Your task to perform on an android device: open app "Microsoft Authenticator" (install if not already installed), go to login, and select forgot password Image 0: 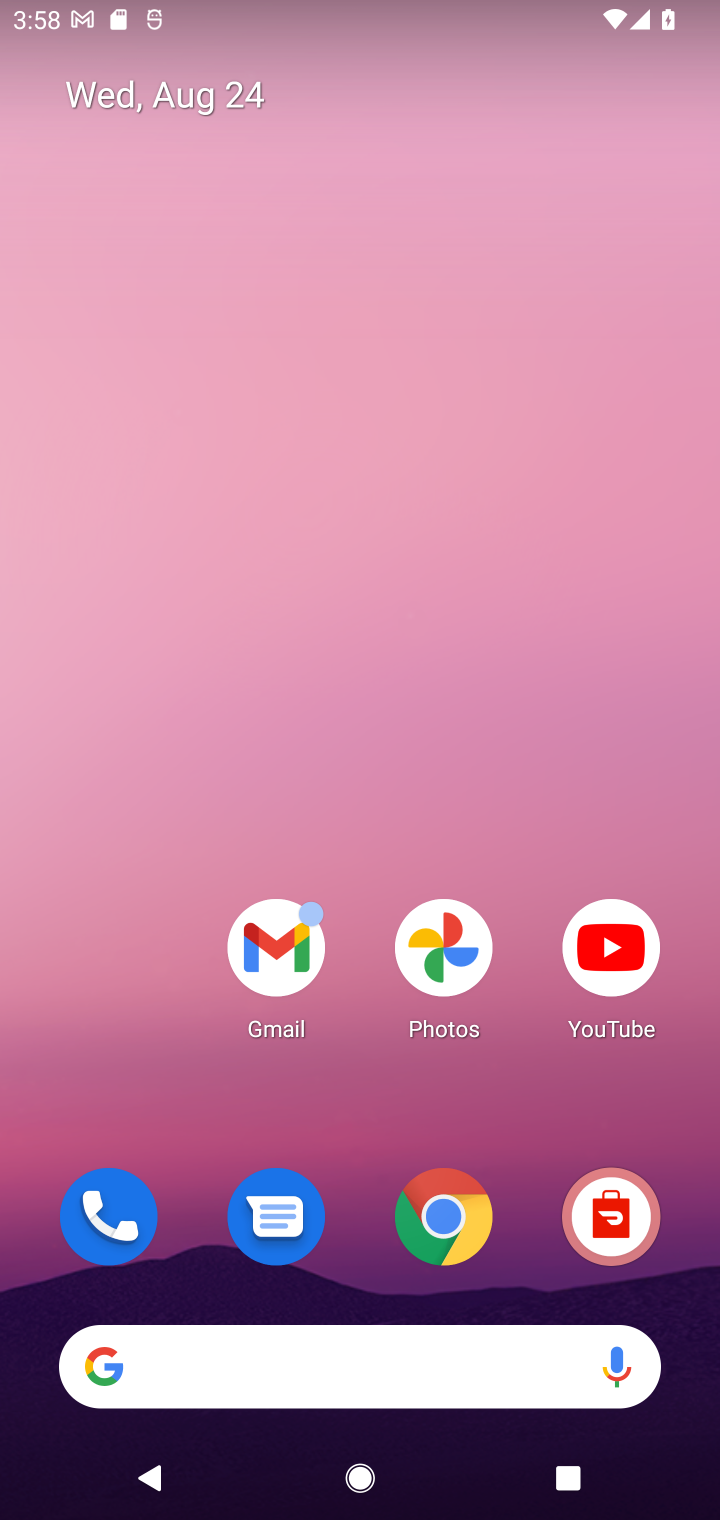
Step 0: drag from (340, 1005) to (408, 270)
Your task to perform on an android device: open app "Microsoft Authenticator" (install if not already installed), go to login, and select forgot password Image 1: 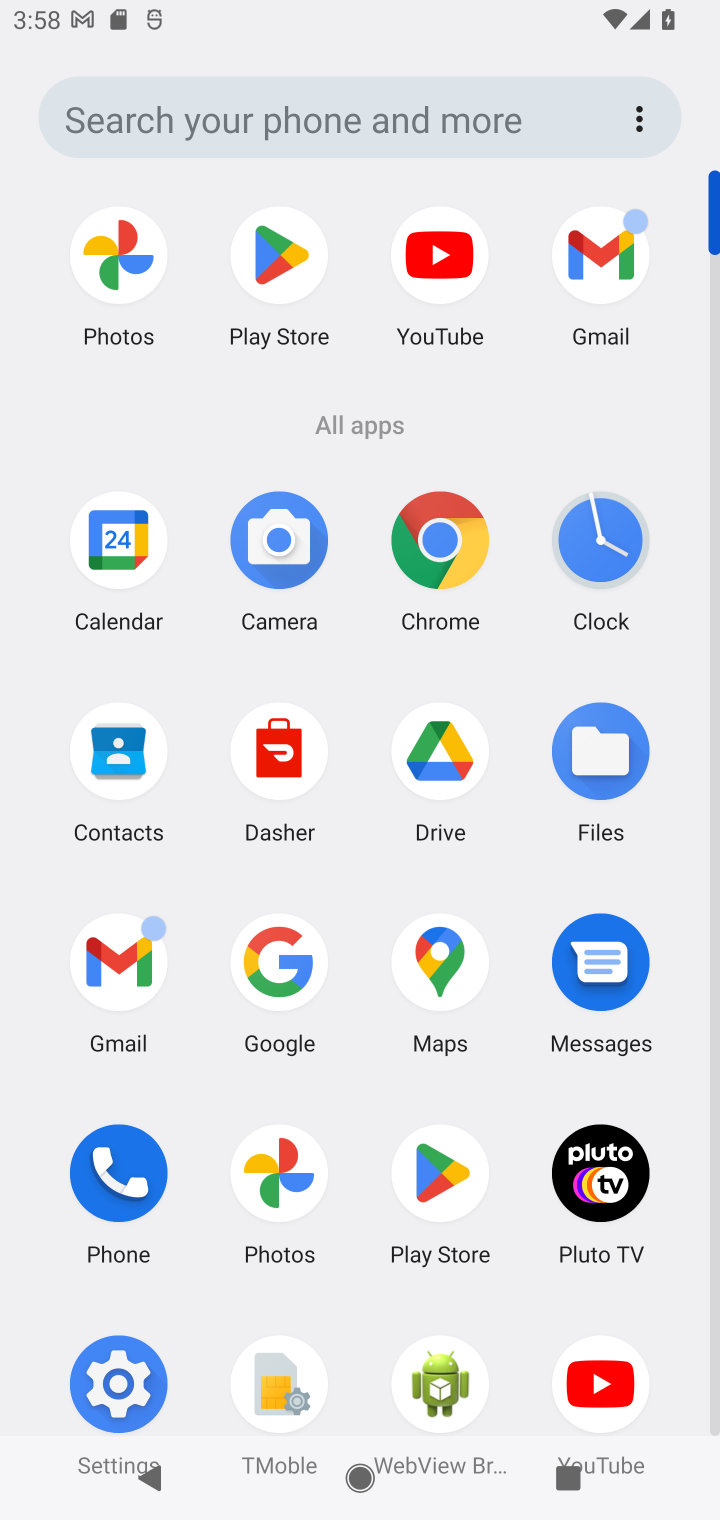
Step 1: click (309, 237)
Your task to perform on an android device: open app "Microsoft Authenticator" (install if not already installed), go to login, and select forgot password Image 2: 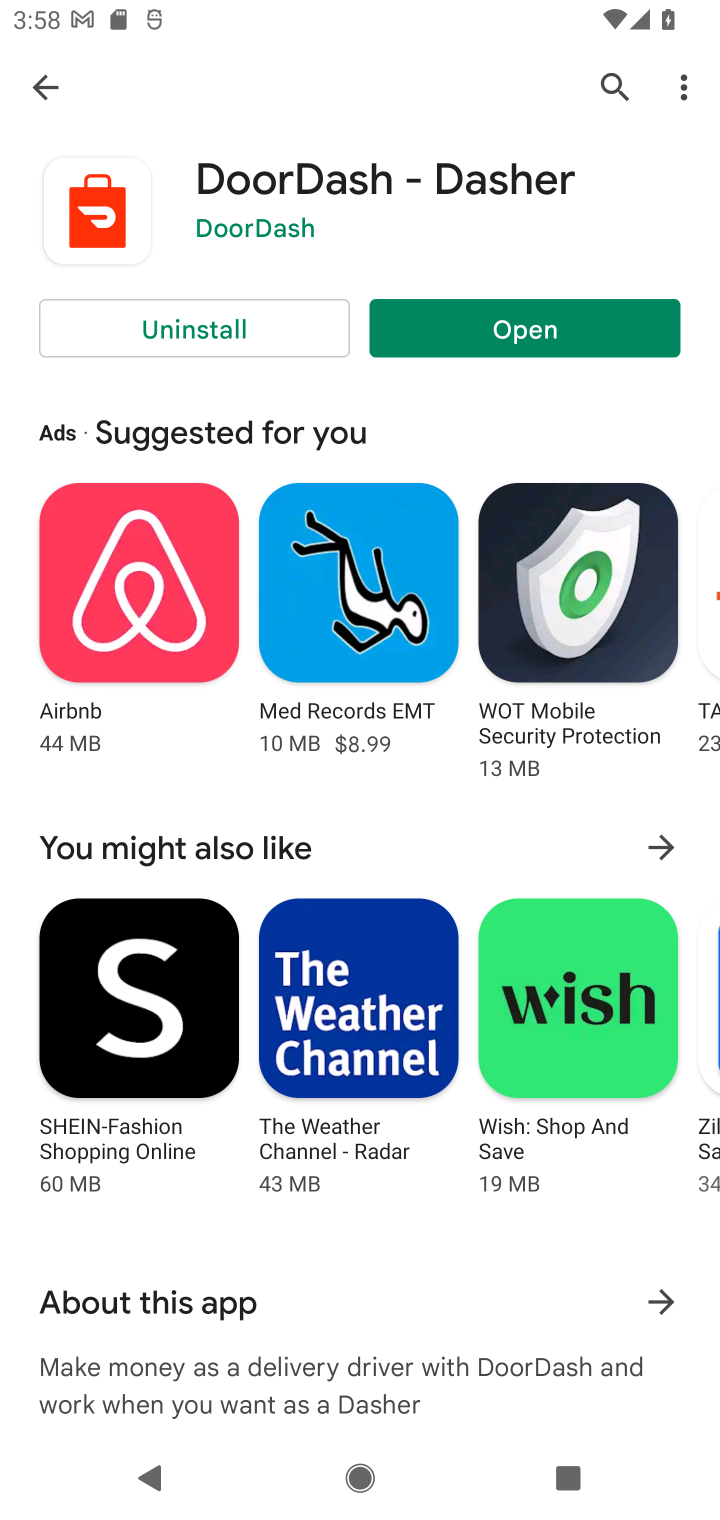
Step 2: click (615, 84)
Your task to perform on an android device: open app "Microsoft Authenticator" (install if not already installed), go to login, and select forgot password Image 3: 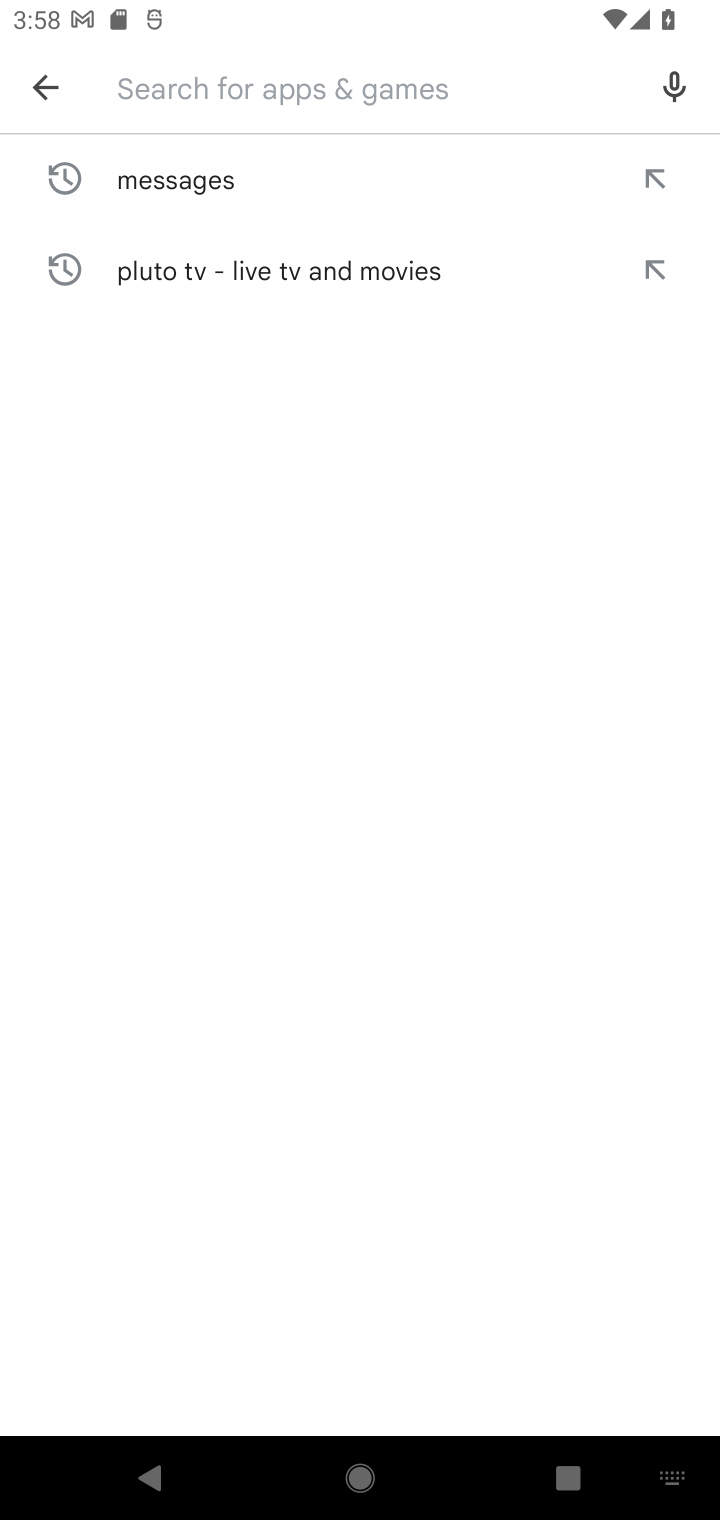
Step 3: type "Microsoft Authenticator"
Your task to perform on an android device: open app "Microsoft Authenticator" (install if not already installed), go to login, and select forgot password Image 4: 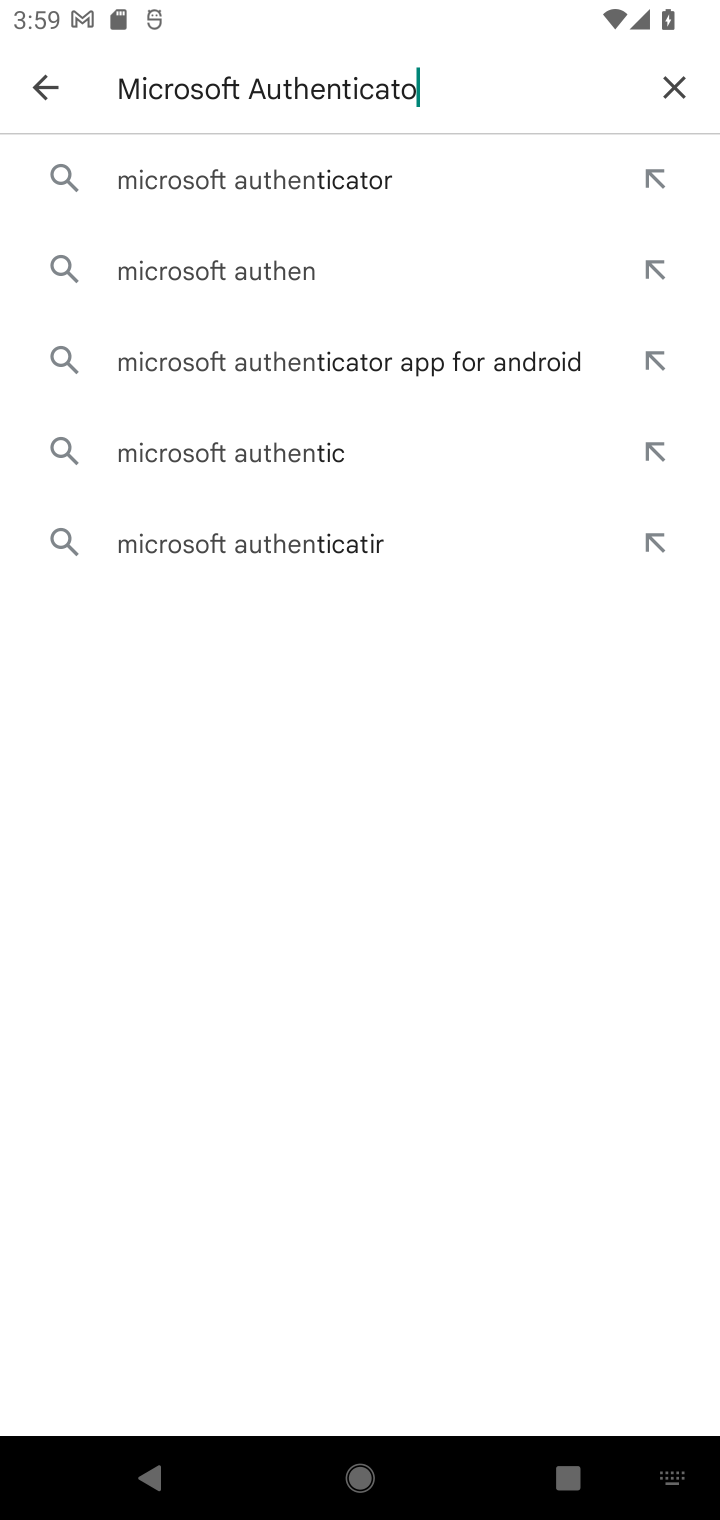
Step 4: type ""
Your task to perform on an android device: open app "Microsoft Authenticator" (install if not already installed), go to login, and select forgot password Image 5: 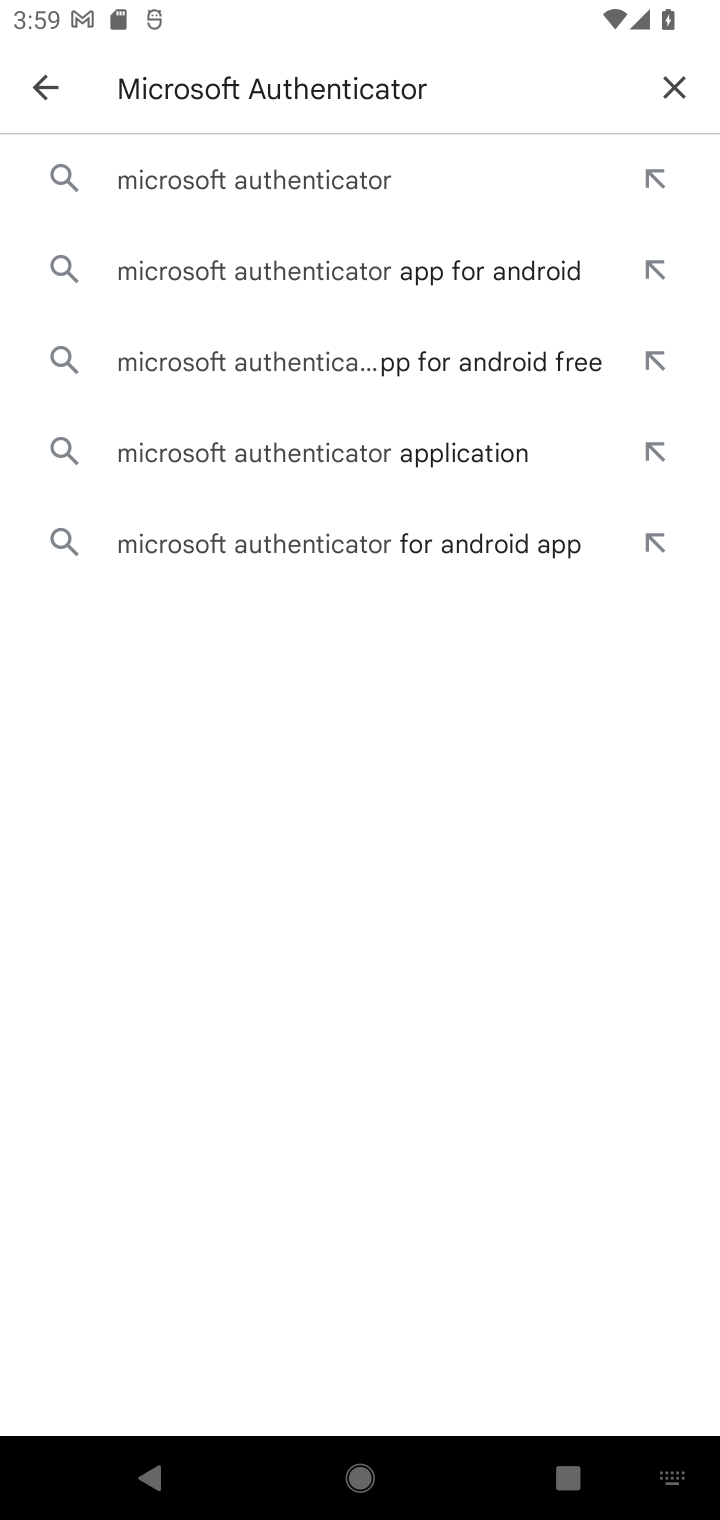
Step 5: click (224, 159)
Your task to perform on an android device: open app "Microsoft Authenticator" (install if not already installed), go to login, and select forgot password Image 6: 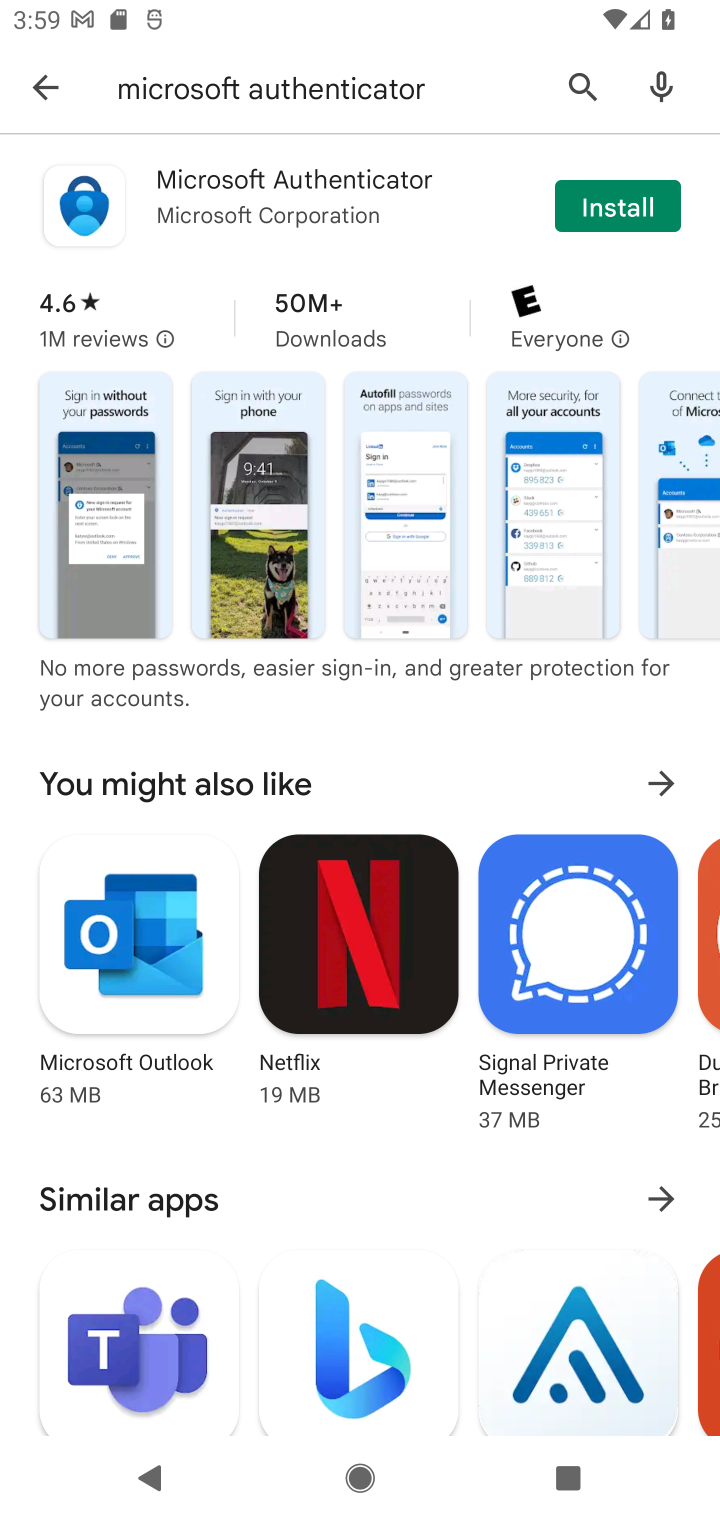
Step 6: click (648, 213)
Your task to perform on an android device: open app "Microsoft Authenticator" (install if not already installed), go to login, and select forgot password Image 7: 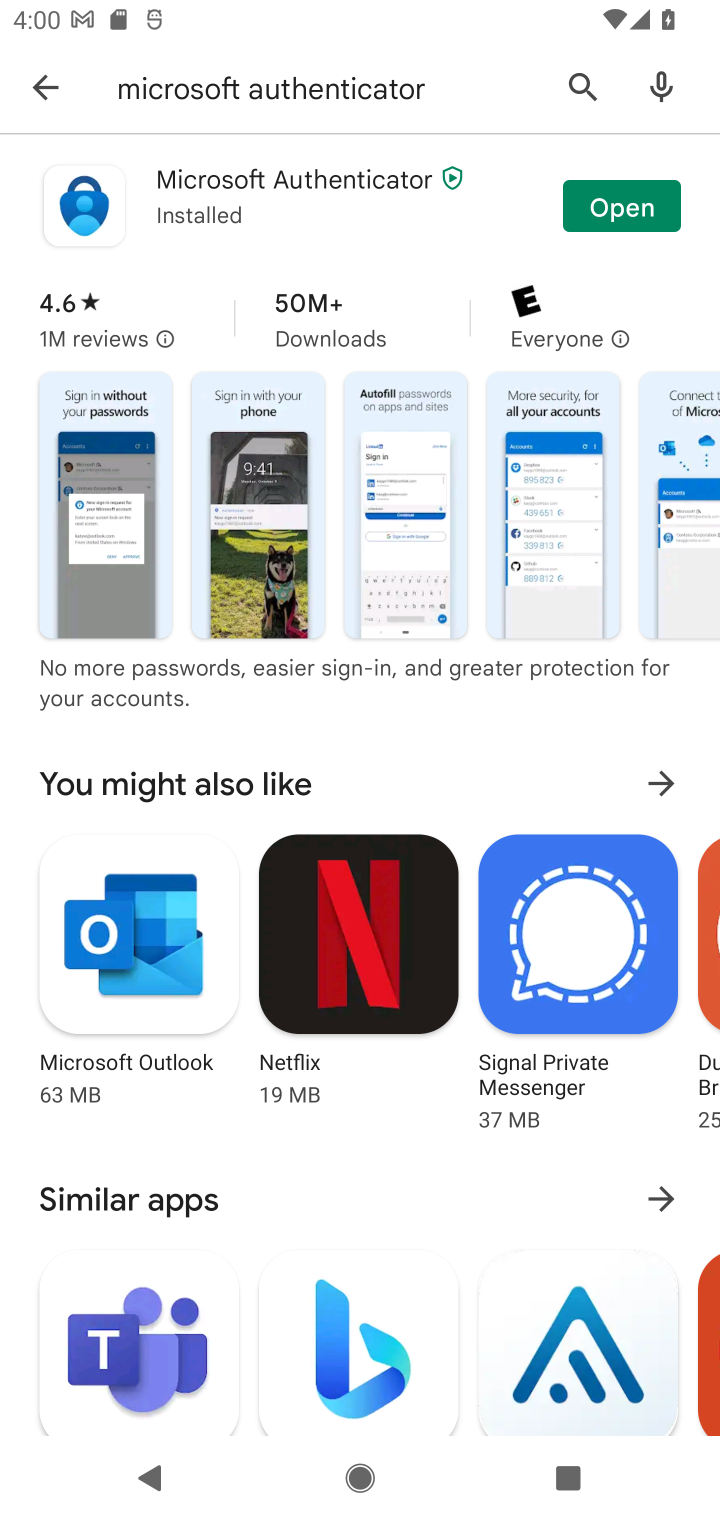
Step 7: click (648, 213)
Your task to perform on an android device: open app "Microsoft Authenticator" (install if not already installed), go to login, and select forgot password Image 8: 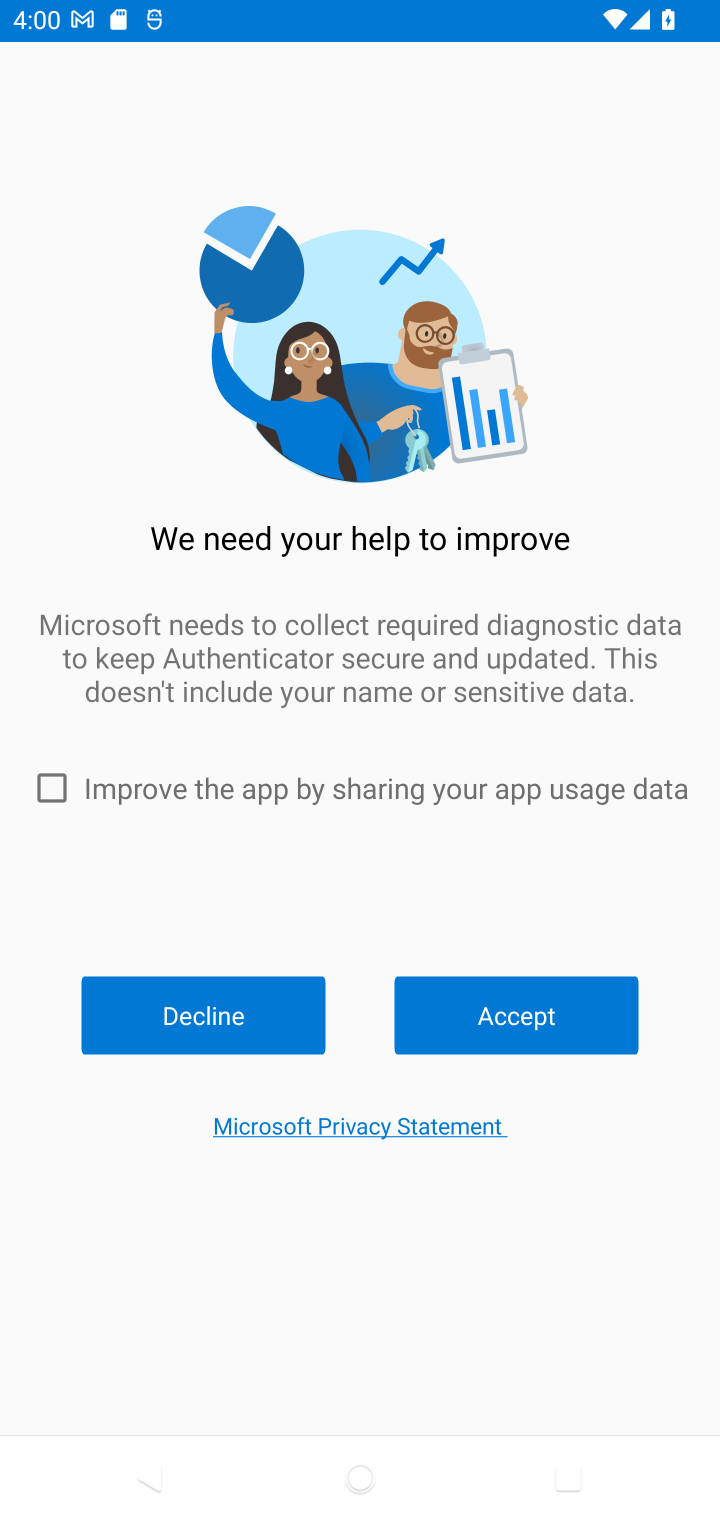
Step 8: task complete